Your task to perform on an android device: see sites visited before in the chrome app Image 0: 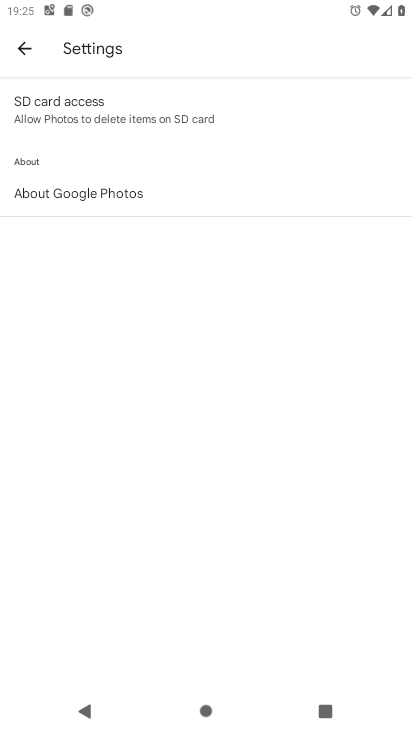
Step 0: press home button
Your task to perform on an android device: see sites visited before in the chrome app Image 1: 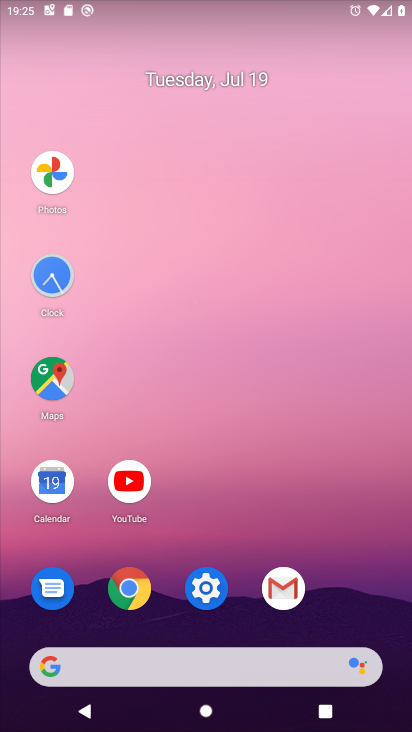
Step 1: click (130, 579)
Your task to perform on an android device: see sites visited before in the chrome app Image 2: 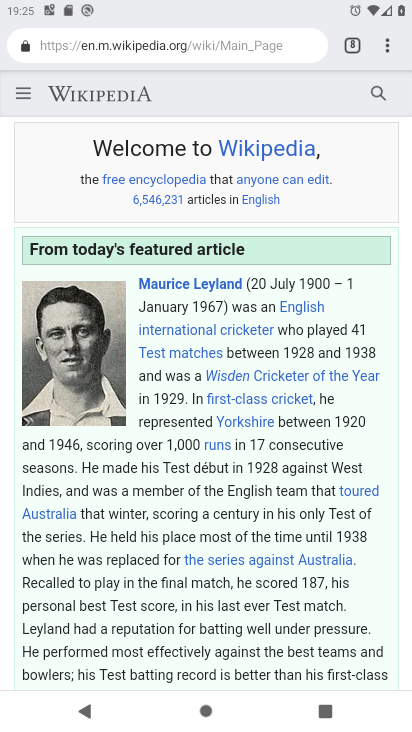
Step 2: click (394, 43)
Your task to perform on an android device: see sites visited before in the chrome app Image 3: 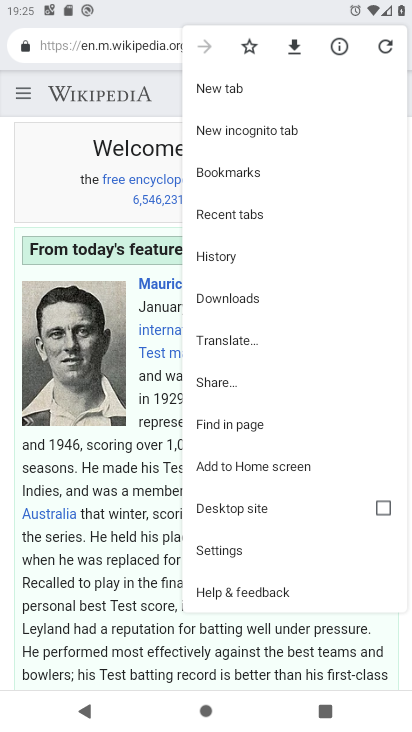
Step 3: click (216, 250)
Your task to perform on an android device: see sites visited before in the chrome app Image 4: 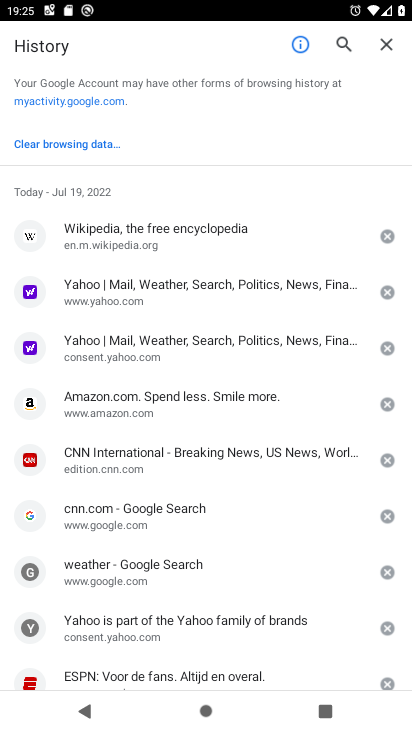
Step 4: task complete